Your task to perform on an android device: toggle wifi Image 0: 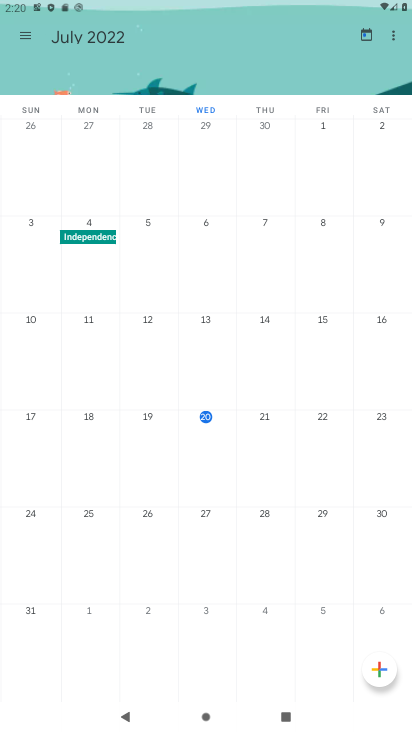
Step 0: press home button
Your task to perform on an android device: toggle wifi Image 1: 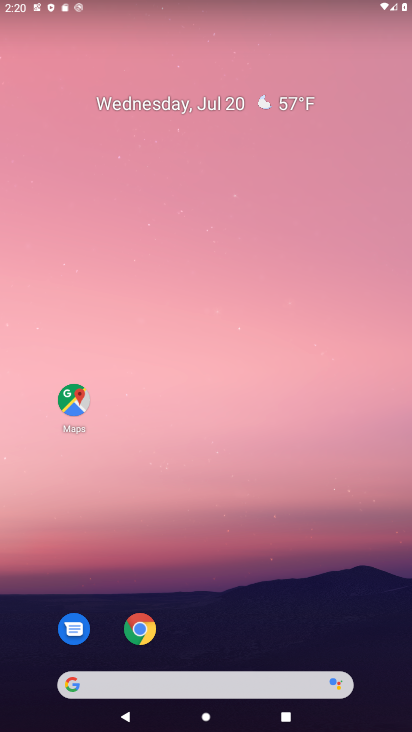
Step 1: drag from (194, 414) to (173, 119)
Your task to perform on an android device: toggle wifi Image 2: 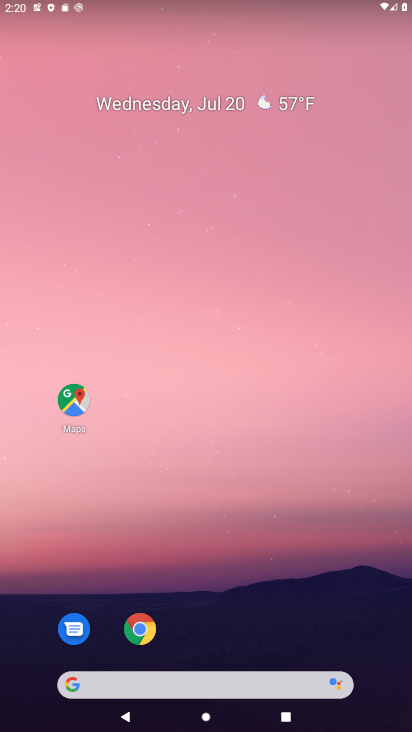
Step 2: drag from (196, 674) to (206, 96)
Your task to perform on an android device: toggle wifi Image 3: 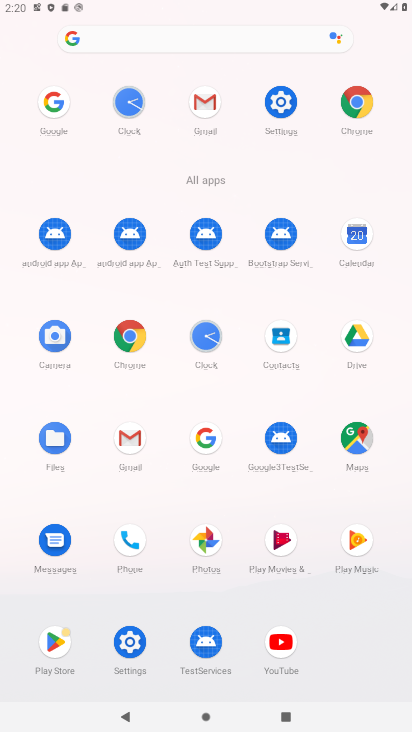
Step 3: click (282, 93)
Your task to perform on an android device: toggle wifi Image 4: 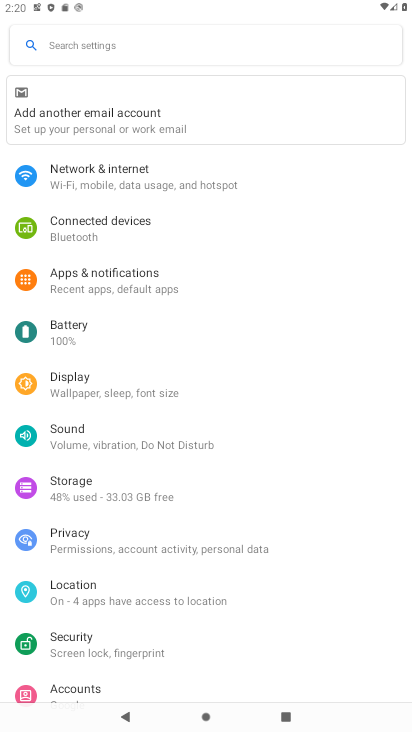
Step 4: click (82, 180)
Your task to perform on an android device: toggle wifi Image 5: 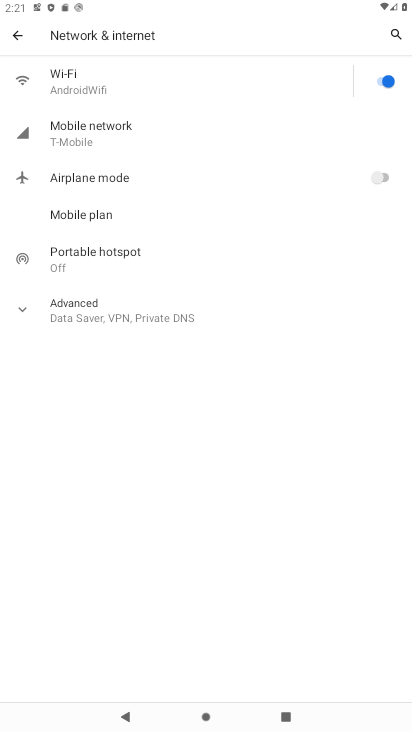
Step 5: click (384, 78)
Your task to perform on an android device: toggle wifi Image 6: 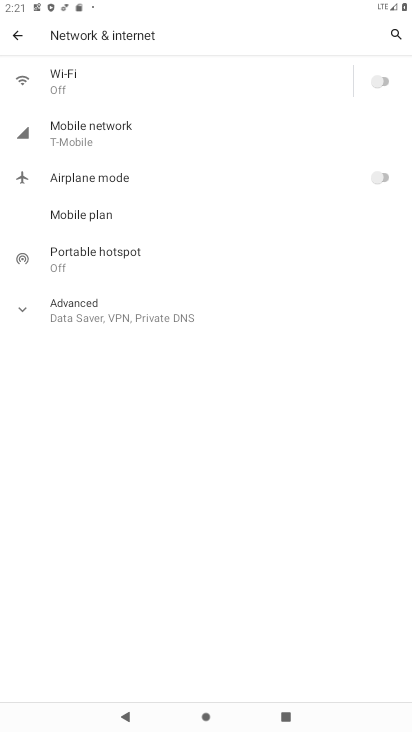
Step 6: task complete